Your task to perform on an android device: Go to Yahoo.com Image 0: 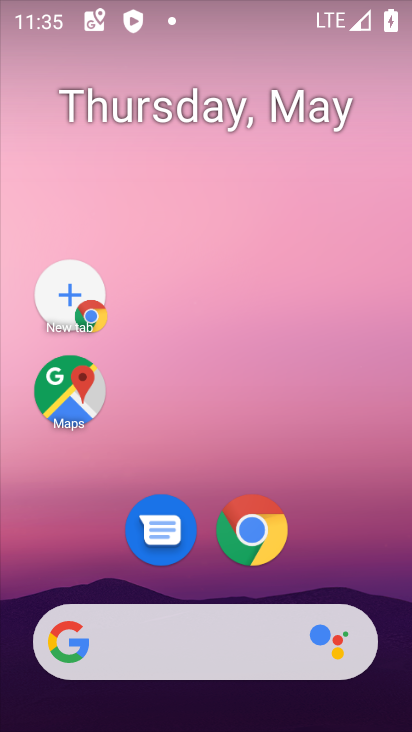
Step 0: drag from (319, 687) to (220, 202)
Your task to perform on an android device: Go to Yahoo.com Image 1: 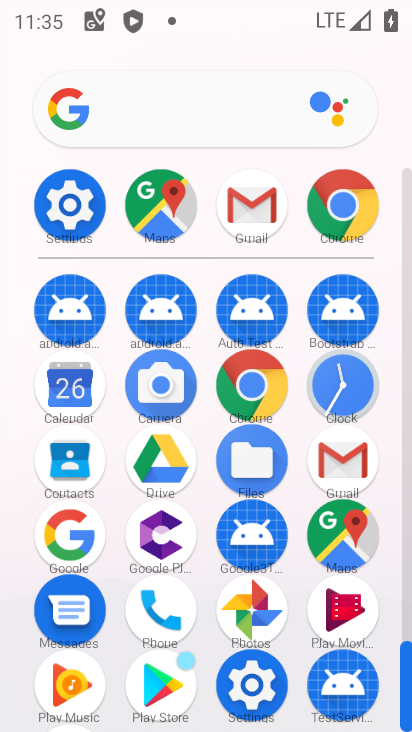
Step 1: click (320, 204)
Your task to perform on an android device: Go to Yahoo.com Image 2: 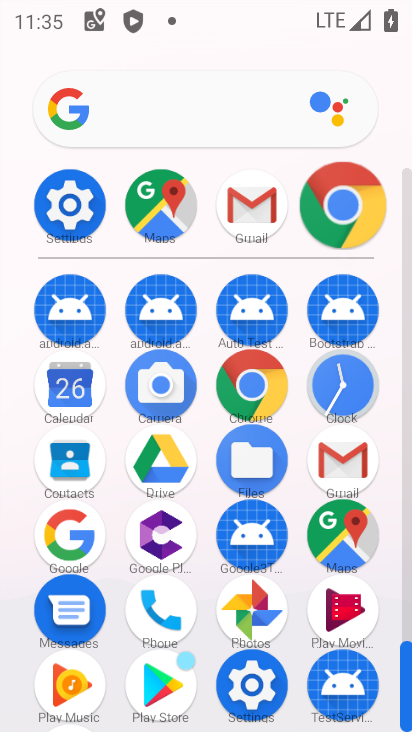
Step 2: click (377, 214)
Your task to perform on an android device: Go to Yahoo.com Image 3: 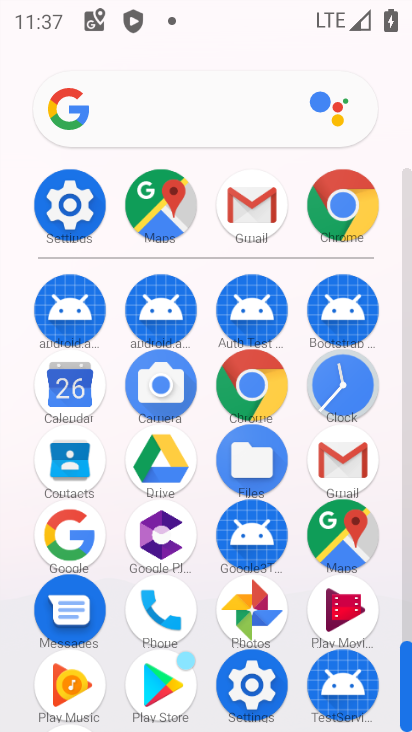
Step 3: click (353, 204)
Your task to perform on an android device: Go to Yahoo.com Image 4: 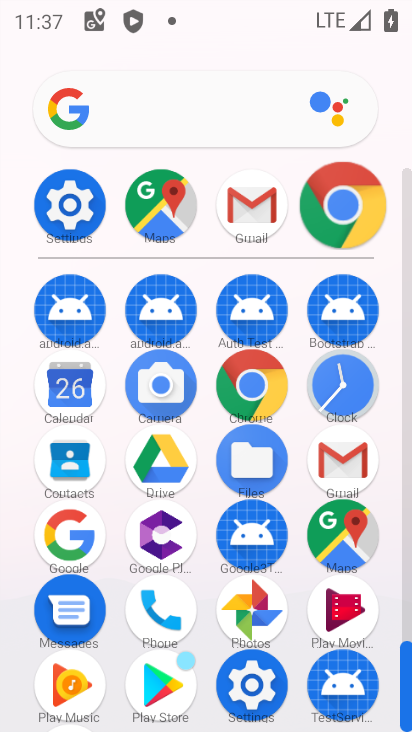
Step 4: click (349, 208)
Your task to perform on an android device: Go to Yahoo.com Image 5: 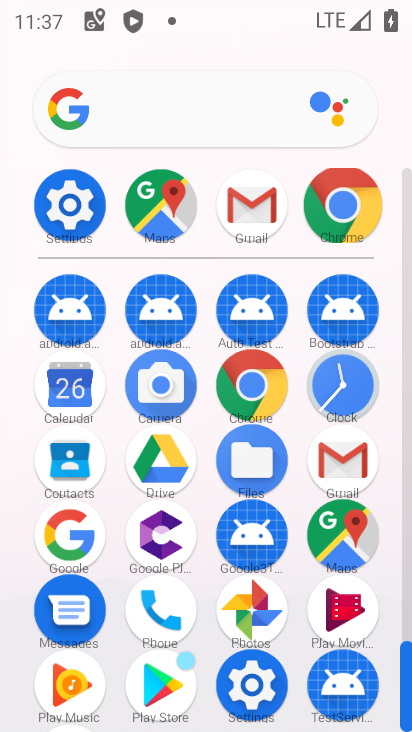
Step 5: click (324, 199)
Your task to perform on an android device: Go to Yahoo.com Image 6: 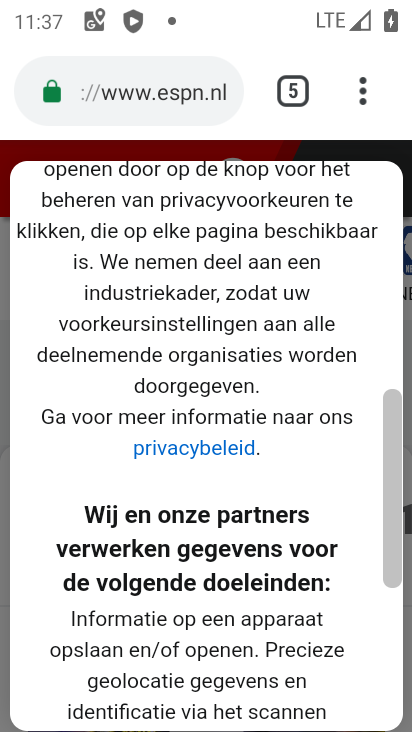
Step 6: drag from (359, 92) to (214, 483)
Your task to perform on an android device: Go to Yahoo.com Image 7: 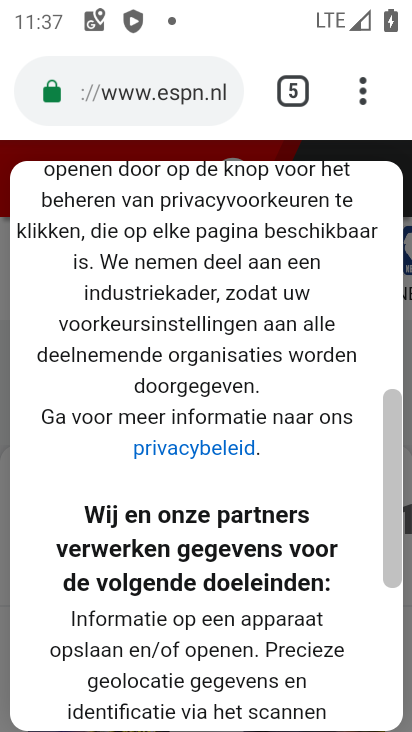
Step 7: click (363, 97)
Your task to perform on an android device: Go to Yahoo.com Image 8: 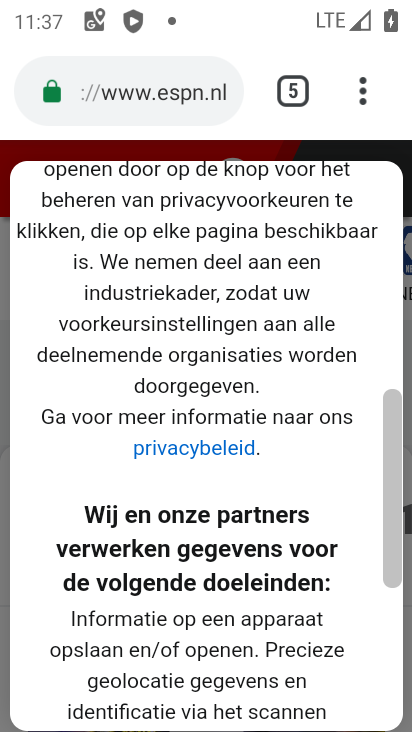
Step 8: press back button
Your task to perform on an android device: Go to Yahoo.com Image 9: 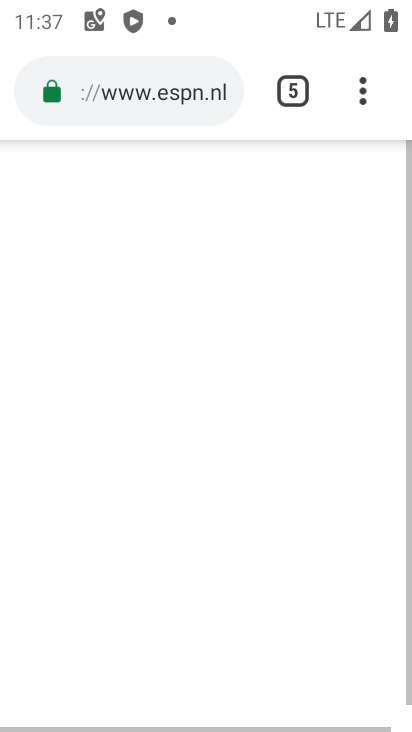
Step 9: press back button
Your task to perform on an android device: Go to Yahoo.com Image 10: 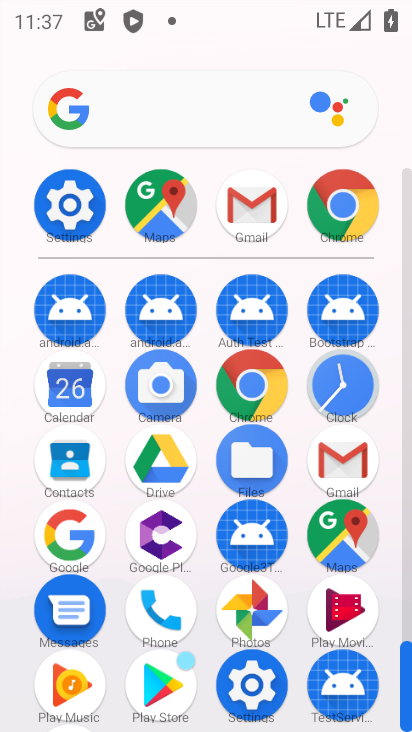
Step 10: click (348, 206)
Your task to perform on an android device: Go to Yahoo.com Image 11: 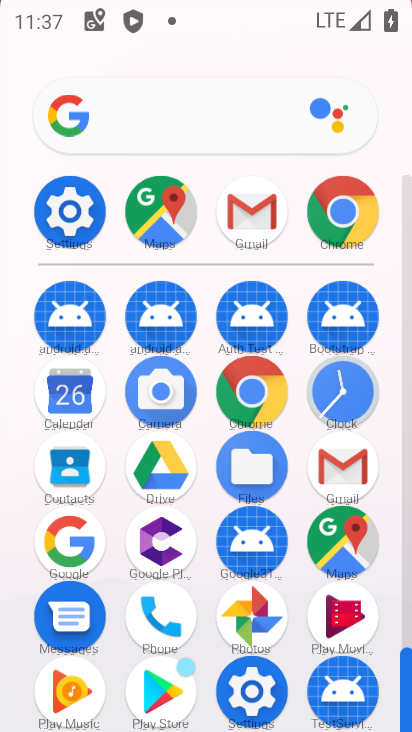
Step 11: click (335, 214)
Your task to perform on an android device: Go to Yahoo.com Image 12: 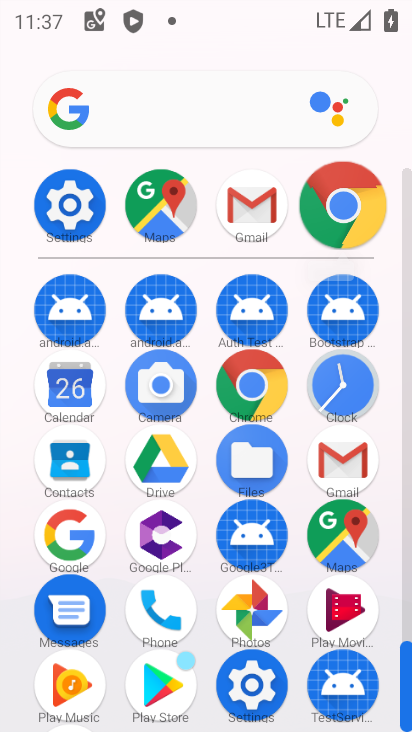
Step 12: click (335, 209)
Your task to perform on an android device: Go to Yahoo.com Image 13: 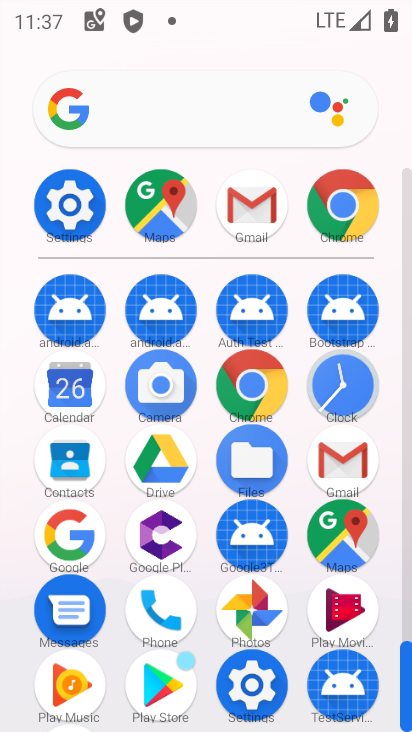
Step 13: click (336, 209)
Your task to perform on an android device: Go to Yahoo.com Image 14: 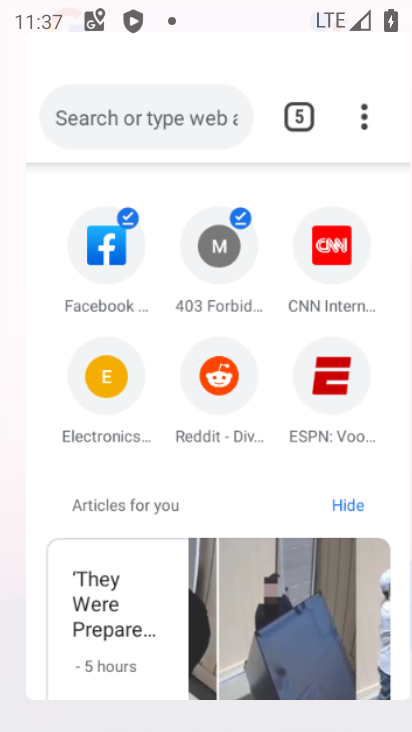
Step 14: drag from (340, 211) to (238, 190)
Your task to perform on an android device: Go to Yahoo.com Image 15: 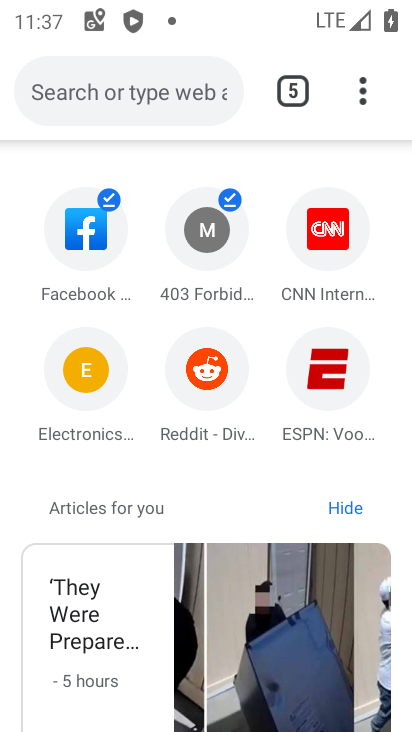
Step 15: click (362, 99)
Your task to perform on an android device: Go to Yahoo.com Image 16: 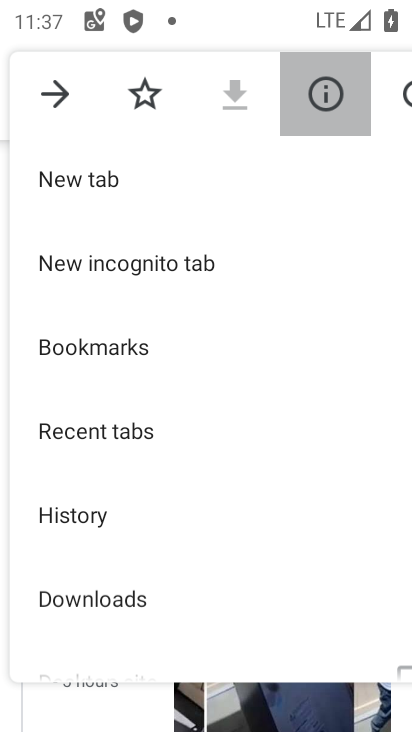
Step 16: click (365, 95)
Your task to perform on an android device: Go to Yahoo.com Image 17: 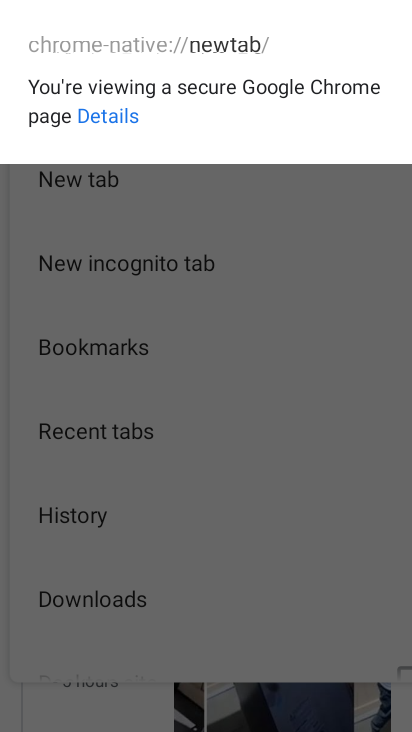
Step 17: click (271, 382)
Your task to perform on an android device: Go to Yahoo.com Image 18: 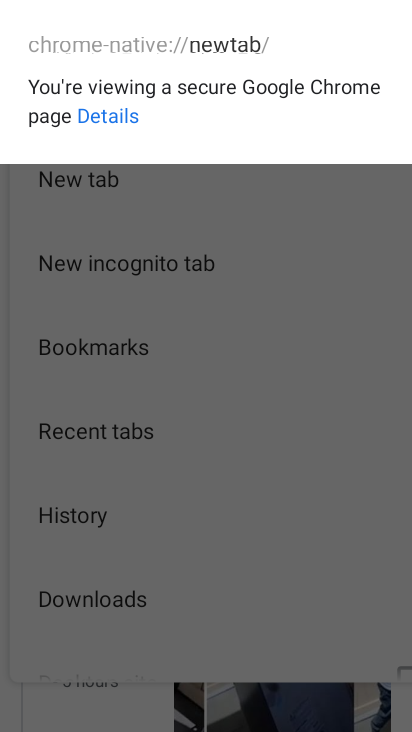
Step 18: click (271, 382)
Your task to perform on an android device: Go to Yahoo.com Image 19: 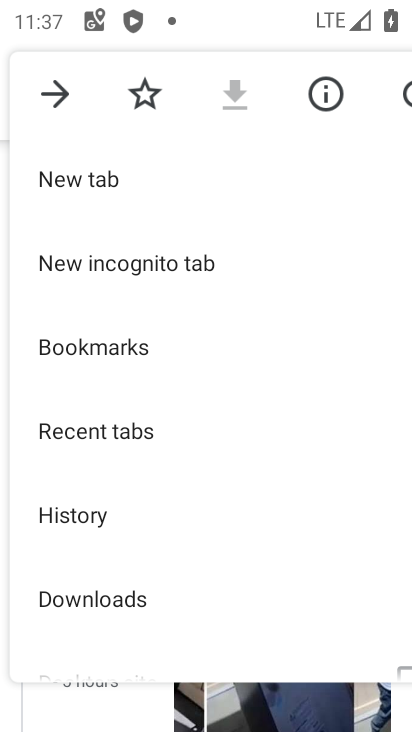
Step 19: click (275, 369)
Your task to perform on an android device: Go to Yahoo.com Image 20: 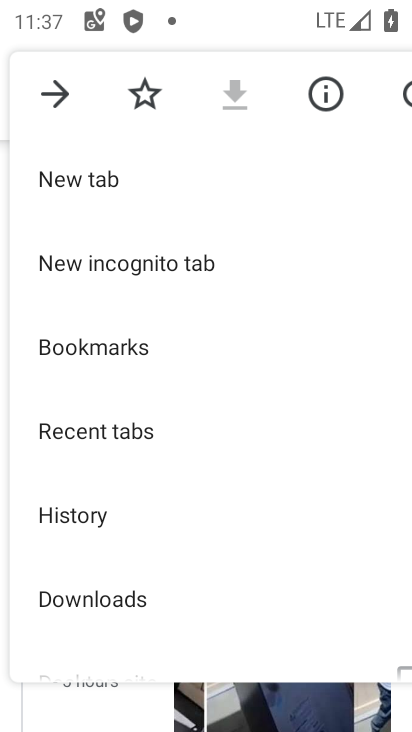
Step 20: click (276, 358)
Your task to perform on an android device: Go to Yahoo.com Image 21: 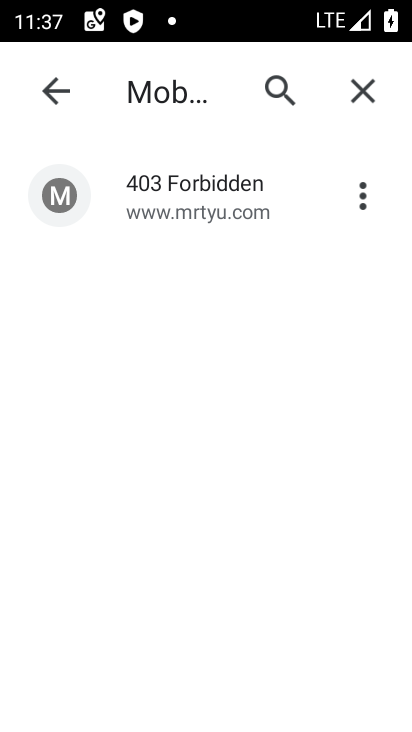
Step 21: click (362, 91)
Your task to perform on an android device: Go to Yahoo.com Image 22: 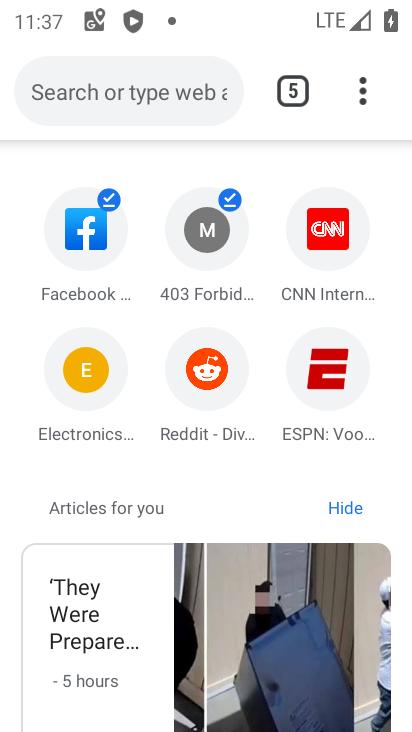
Step 22: click (363, 98)
Your task to perform on an android device: Go to Yahoo.com Image 23: 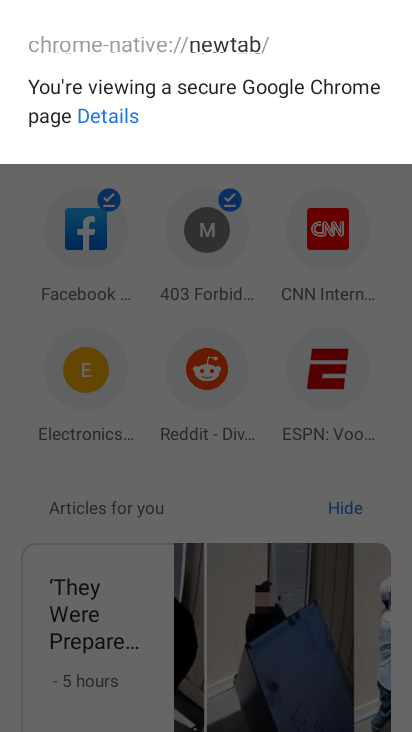
Step 23: click (394, 229)
Your task to perform on an android device: Go to Yahoo.com Image 24: 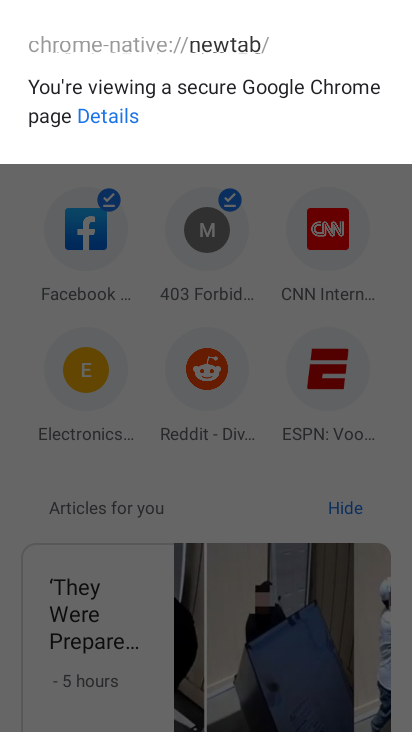
Step 24: click (394, 229)
Your task to perform on an android device: Go to Yahoo.com Image 25: 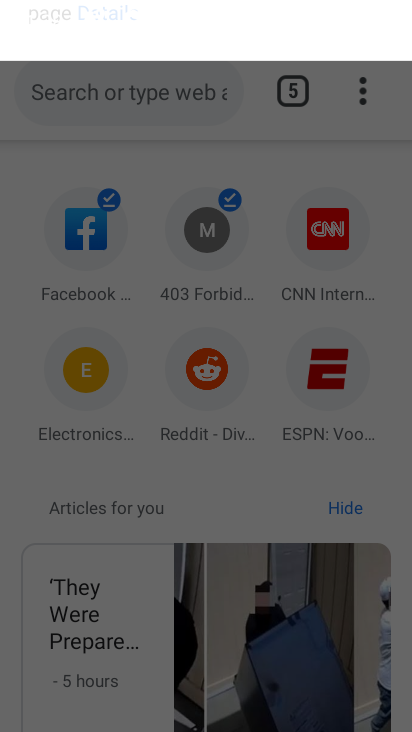
Step 25: click (394, 229)
Your task to perform on an android device: Go to Yahoo.com Image 26: 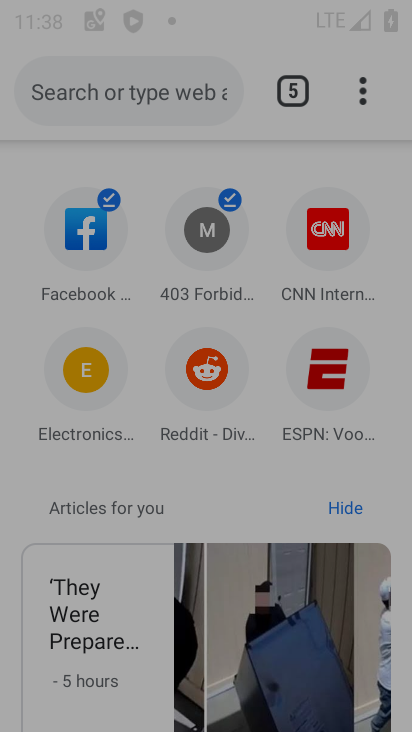
Step 26: click (392, 229)
Your task to perform on an android device: Go to Yahoo.com Image 27: 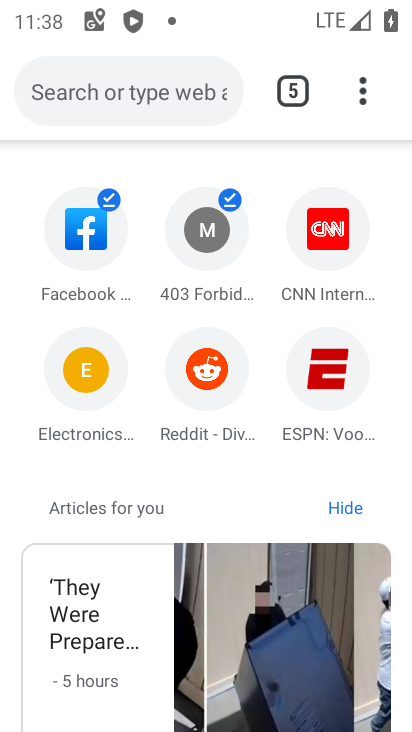
Step 27: click (387, 226)
Your task to perform on an android device: Go to Yahoo.com Image 28: 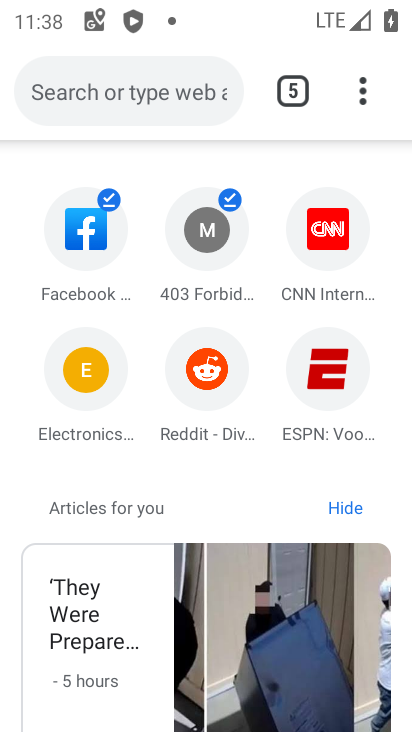
Step 28: click (382, 222)
Your task to perform on an android device: Go to Yahoo.com Image 29: 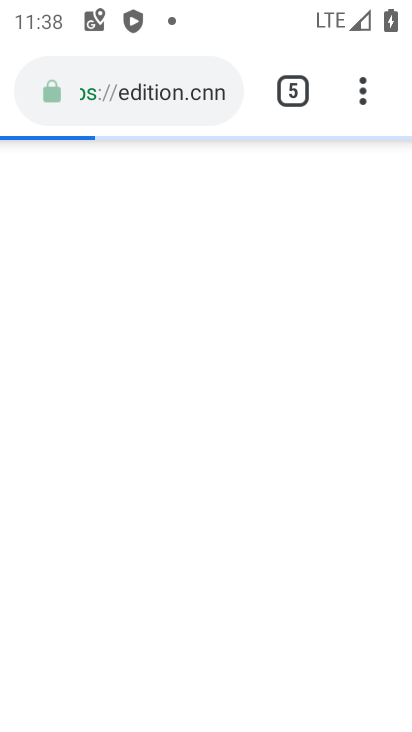
Step 29: drag from (366, 101) to (83, 181)
Your task to perform on an android device: Go to Yahoo.com Image 30: 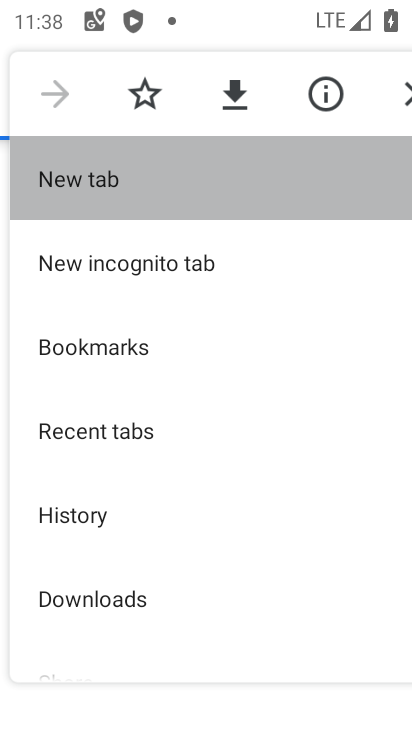
Step 30: click (83, 181)
Your task to perform on an android device: Go to Yahoo.com Image 31: 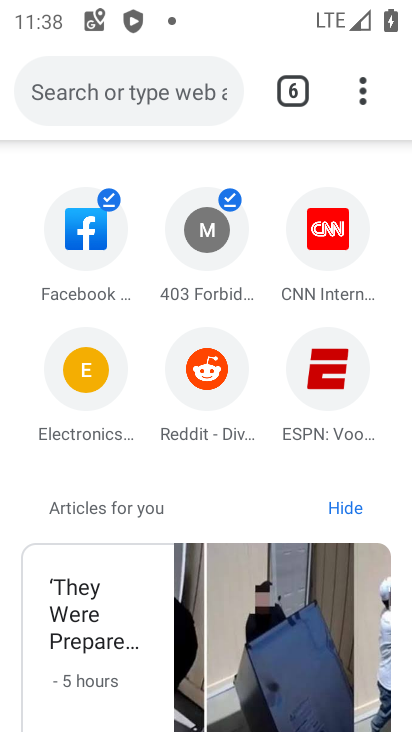
Step 31: task complete